Your task to perform on an android device: toggle notifications settings in the gmail app Image 0: 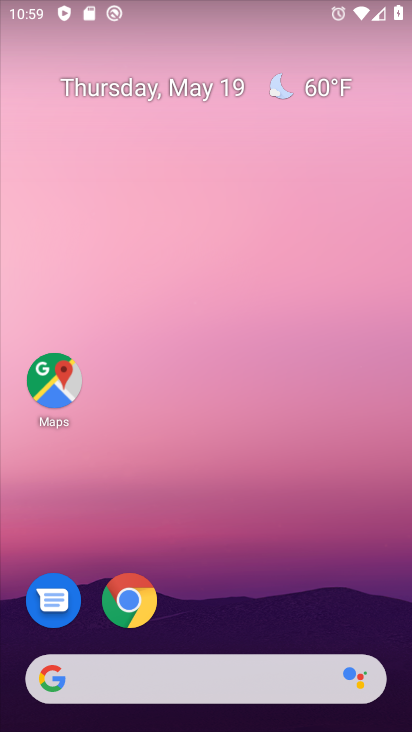
Step 0: drag from (340, 576) to (345, 226)
Your task to perform on an android device: toggle notifications settings in the gmail app Image 1: 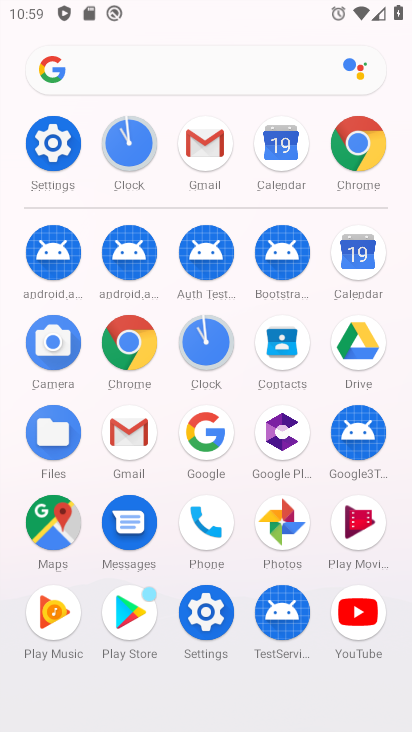
Step 1: click (217, 159)
Your task to perform on an android device: toggle notifications settings in the gmail app Image 2: 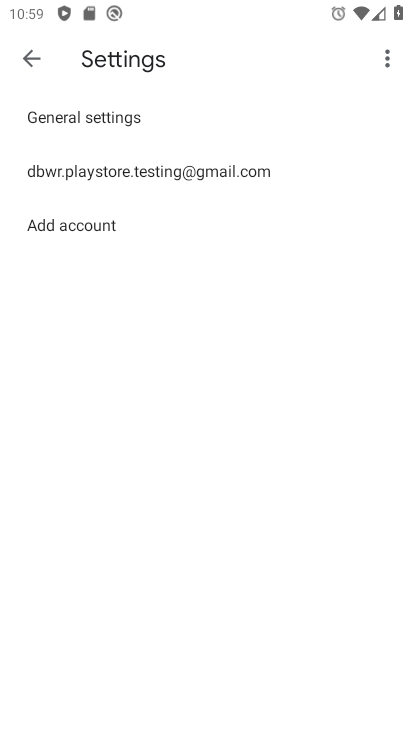
Step 2: click (215, 183)
Your task to perform on an android device: toggle notifications settings in the gmail app Image 3: 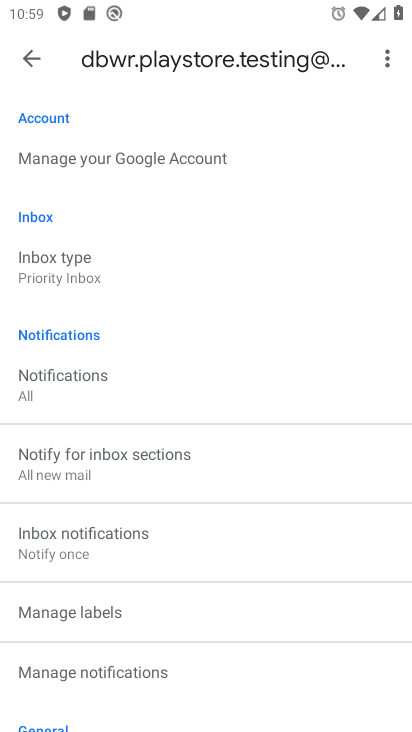
Step 3: drag from (242, 466) to (241, 391)
Your task to perform on an android device: toggle notifications settings in the gmail app Image 4: 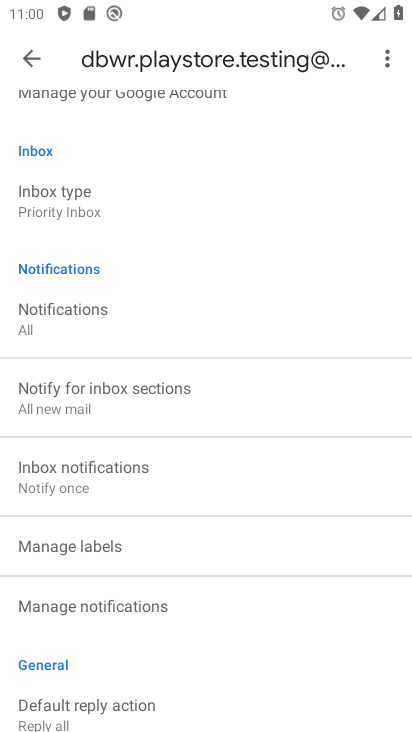
Step 4: drag from (285, 496) to (279, 398)
Your task to perform on an android device: toggle notifications settings in the gmail app Image 5: 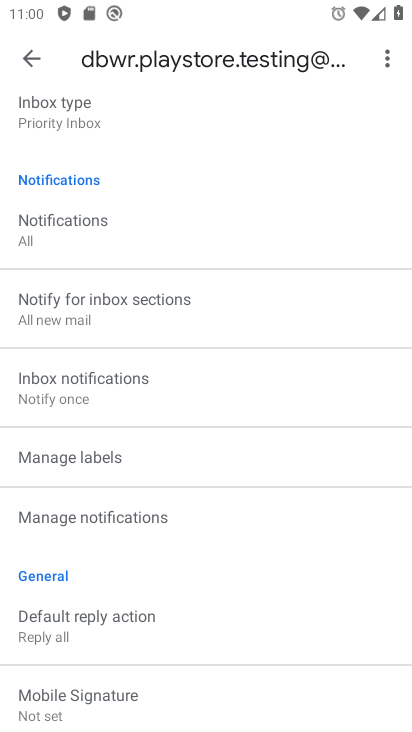
Step 5: drag from (232, 559) to (241, 412)
Your task to perform on an android device: toggle notifications settings in the gmail app Image 6: 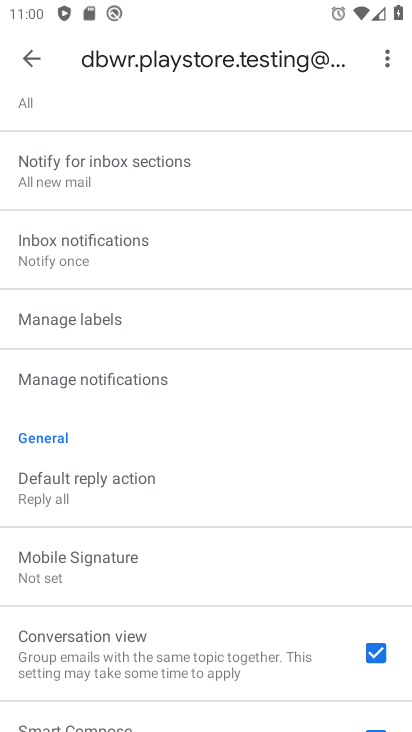
Step 6: drag from (287, 584) to (302, 467)
Your task to perform on an android device: toggle notifications settings in the gmail app Image 7: 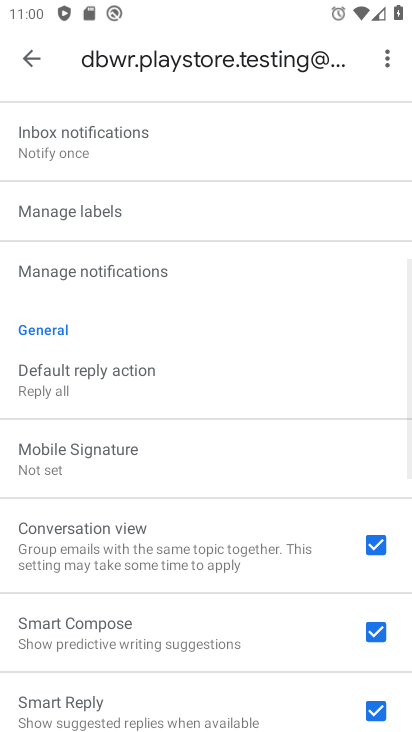
Step 7: drag from (315, 652) to (325, 534)
Your task to perform on an android device: toggle notifications settings in the gmail app Image 8: 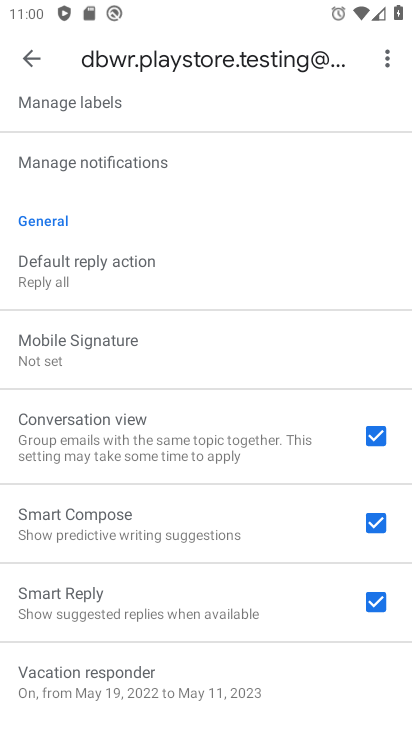
Step 8: drag from (305, 673) to (307, 563)
Your task to perform on an android device: toggle notifications settings in the gmail app Image 9: 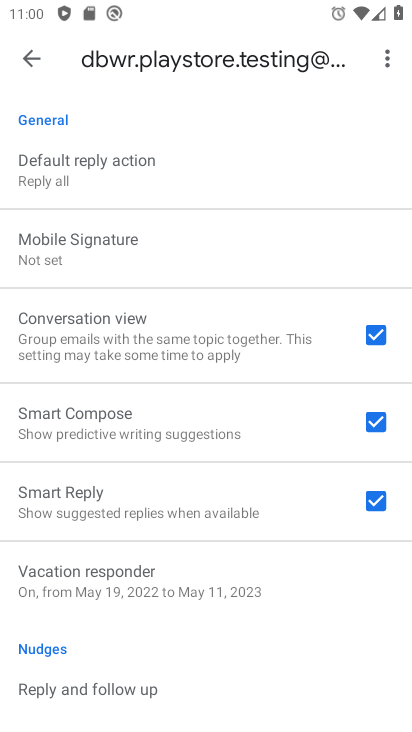
Step 9: drag from (325, 685) to (326, 598)
Your task to perform on an android device: toggle notifications settings in the gmail app Image 10: 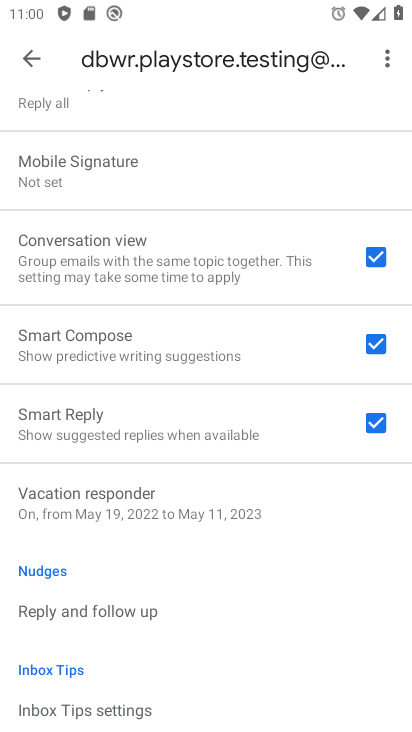
Step 10: drag from (328, 669) to (333, 623)
Your task to perform on an android device: toggle notifications settings in the gmail app Image 11: 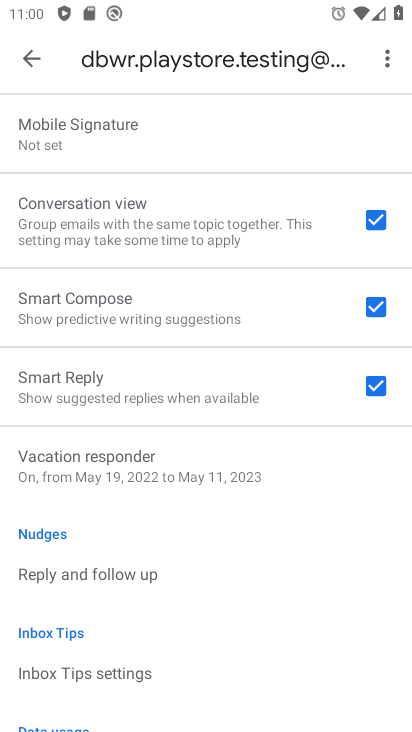
Step 11: drag from (333, 679) to (331, 602)
Your task to perform on an android device: toggle notifications settings in the gmail app Image 12: 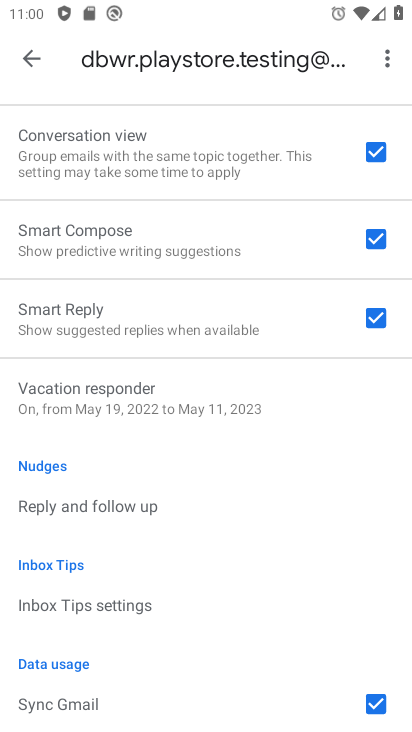
Step 12: drag from (301, 726) to (302, 658)
Your task to perform on an android device: toggle notifications settings in the gmail app Image 13: 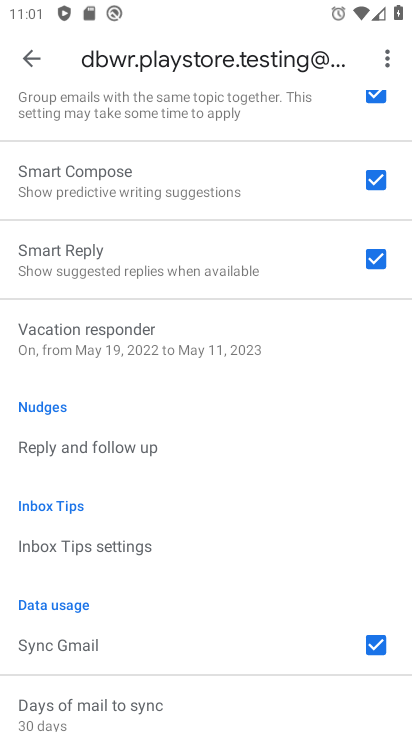
Step 13: click (284, 702)
Your task to perform on an android device: toggle notifications settings in the gmail app Image 14: 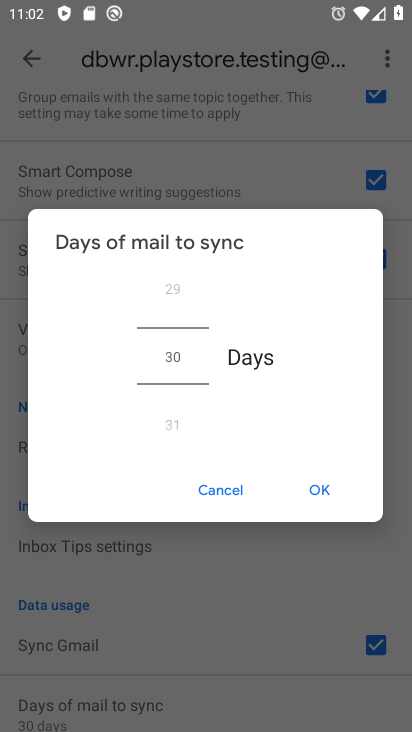
Step 14: drag from (302, 649) to (286, 725)
Your task to perform on an android device: toggle notifications settings in the gmail app Image 15: 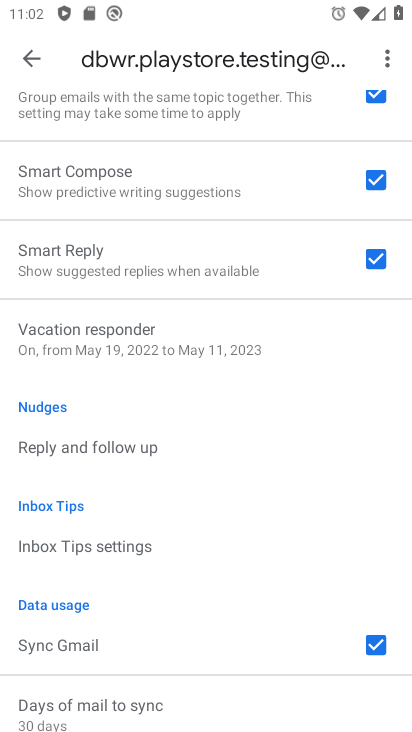
Step 15: drag from (239, 244) to (239, 445)
Your task to perform on an android device: toggle notifications settings in the gmail app Image 16: 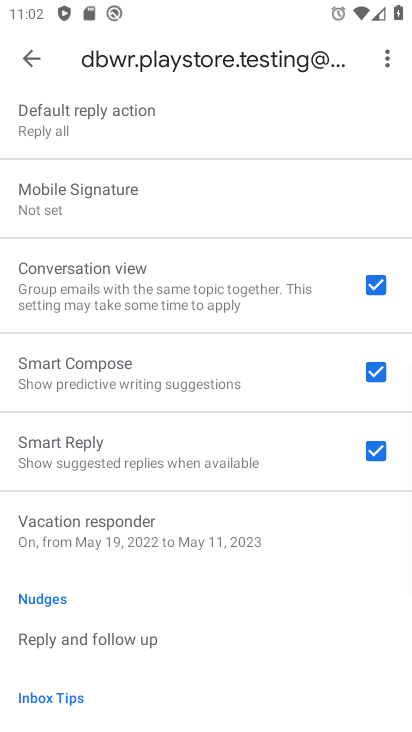
Step 16: drag from (274, 249) to (276, 375)
Your task to perform on an android device: toggle notifications settings in the gmail app Image 17: 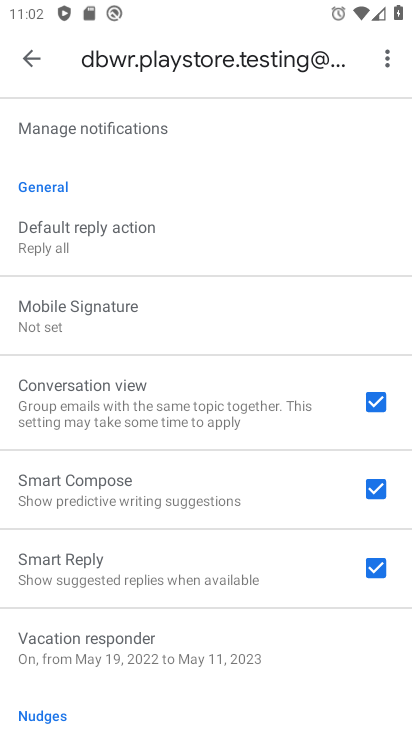
Step 17: drag from (230, 286) to (233, 412)
Your task to perform on an android device: toggle notifications settings in the gmail app Image 18: 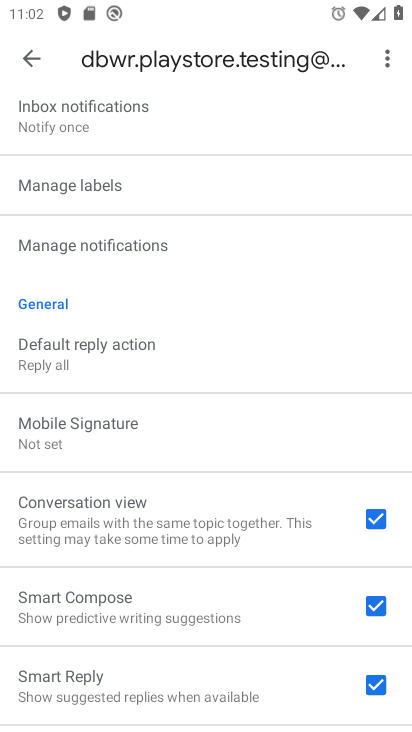
Step 18: click (151, 256)
Your task to perform on an android device: toggle notifications settings in the gmail app Image 19: 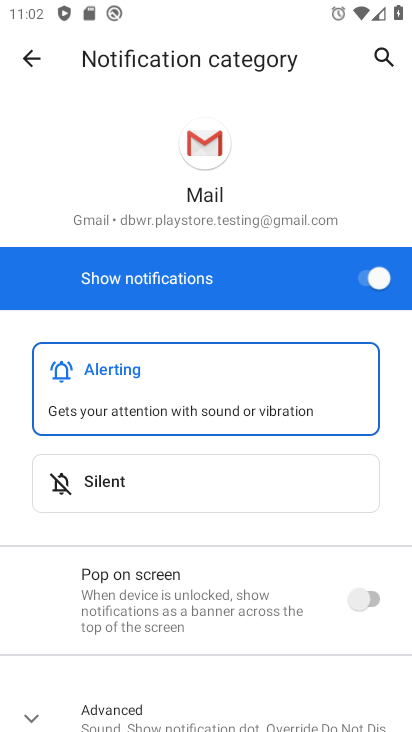
Step 19: click (378, 277)
Your task to perform on an android device: toggle notifications settings in the gmail app Image 20: 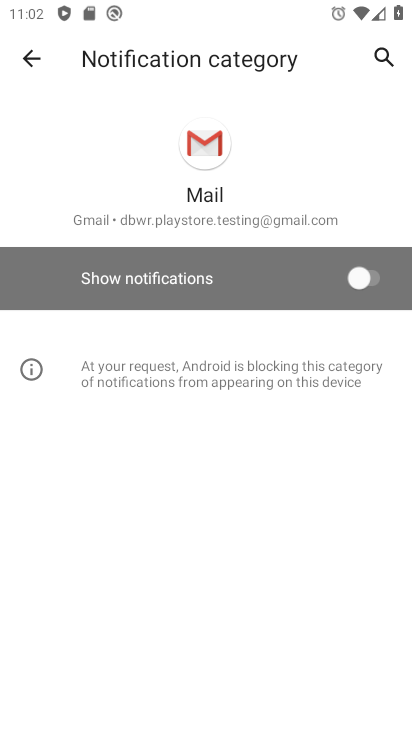
Step 20: press home button
Your task to perform on an android device: toggle notifications settings in the gmail app Image 21: 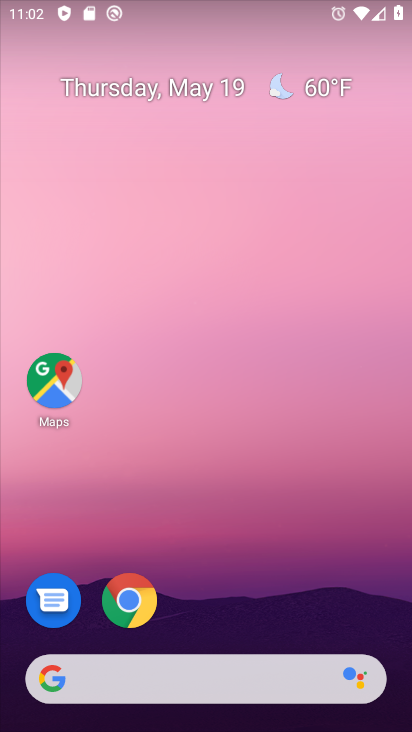
Step 21: drag from (365, 604) to (353, 163)
Your task to perform on an android device: toggle notifications settings in the gmail app Image 22: 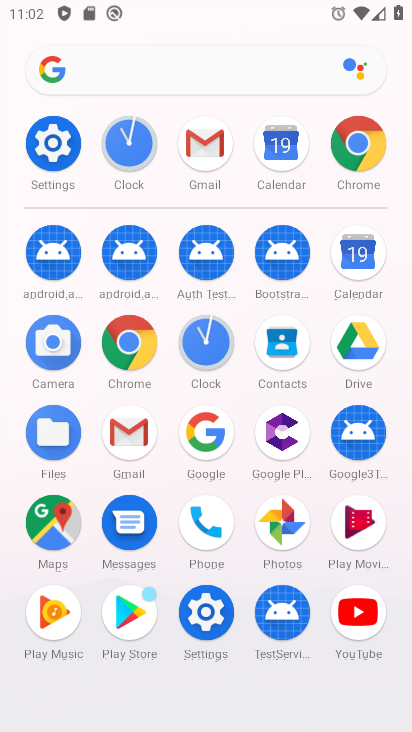
Step 22: click (205, 145)
Your task to perform on an android device: toggle notifications settings in the gmail app Image 23: 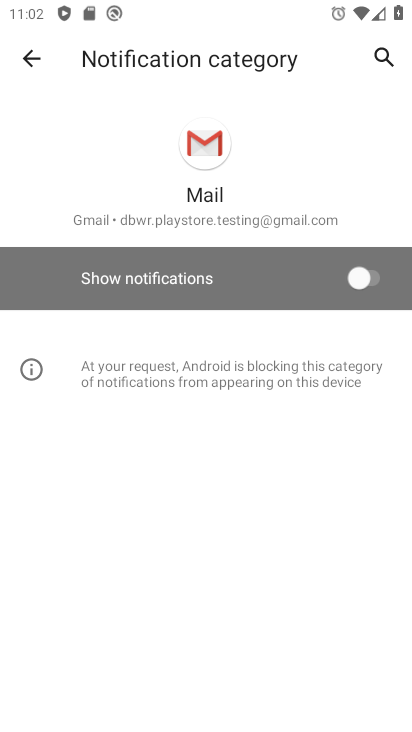
Step 23: click (371, 282)
Your task to perform on an android device: toggle notifications settings in the gmail app Image 24: 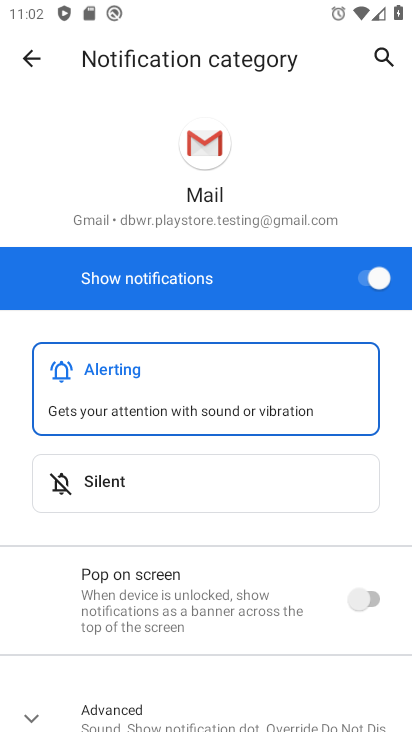
Step 24: task complete